Your task to perform on an android device: Turn on the flashlight Image 0: 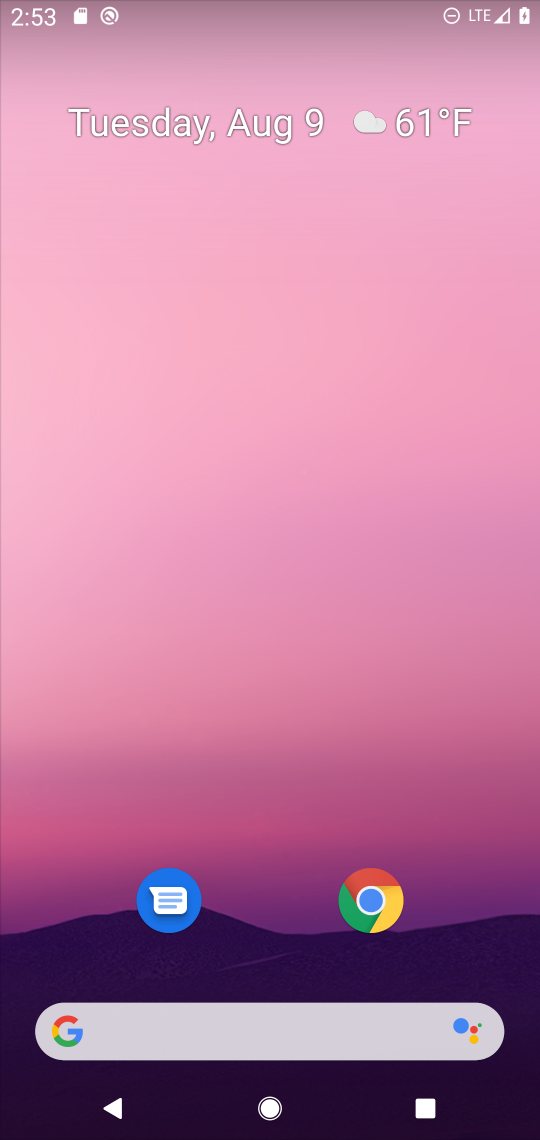
Step 0: press home button
Your task to perform on an android device: Turn on the flashlight Image 1: 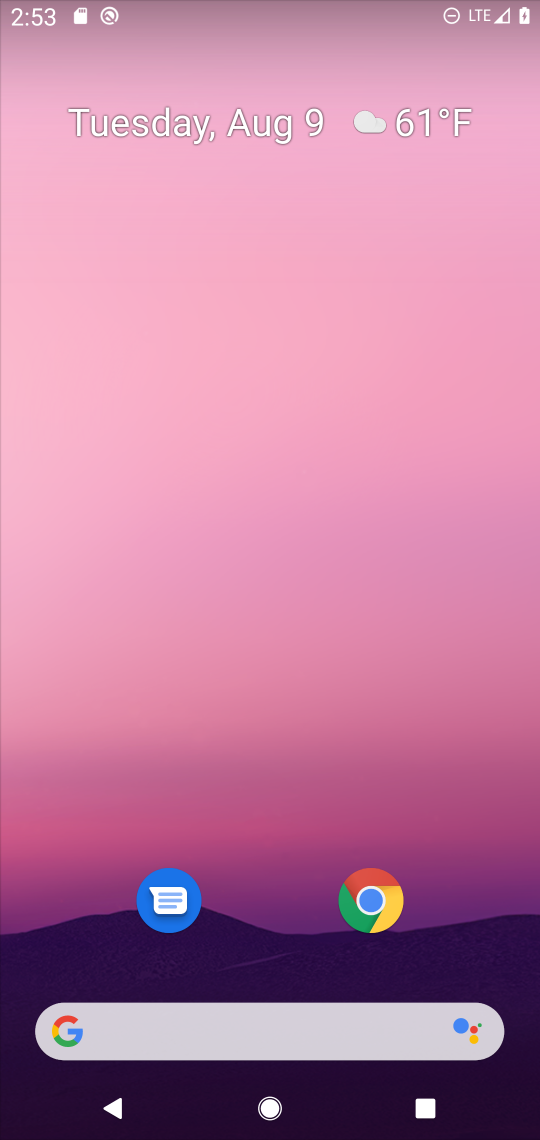
Step 1: drag from (274, 6) to (256, 446)
Your task to perform on an android device: Turn on the flashlight Image 2: 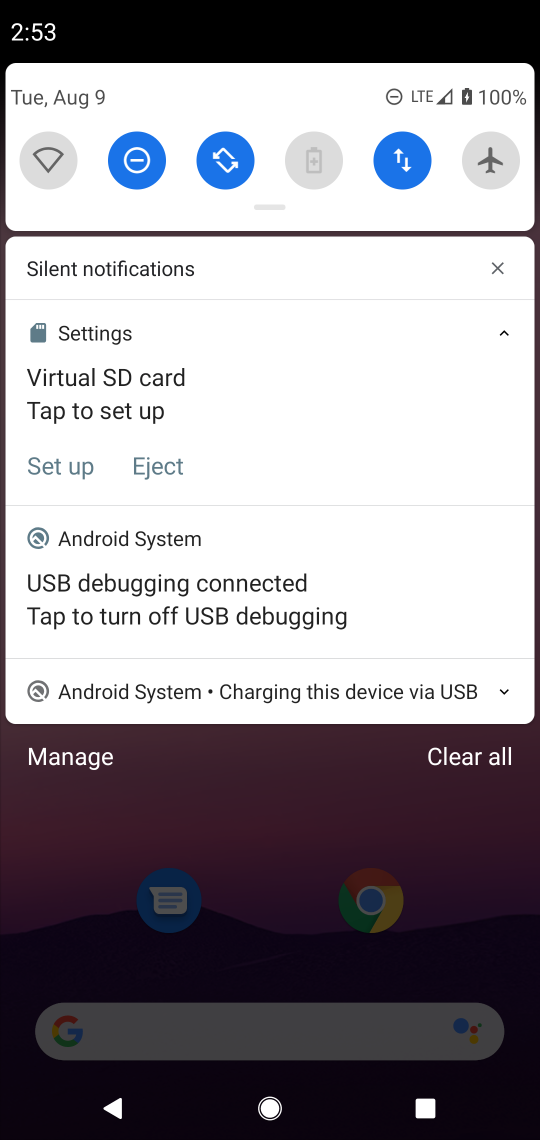
Step 2: drag from (264, 124) to (289, 621)
Your task to perform on an android device: Turn on the flashlight Image 3: 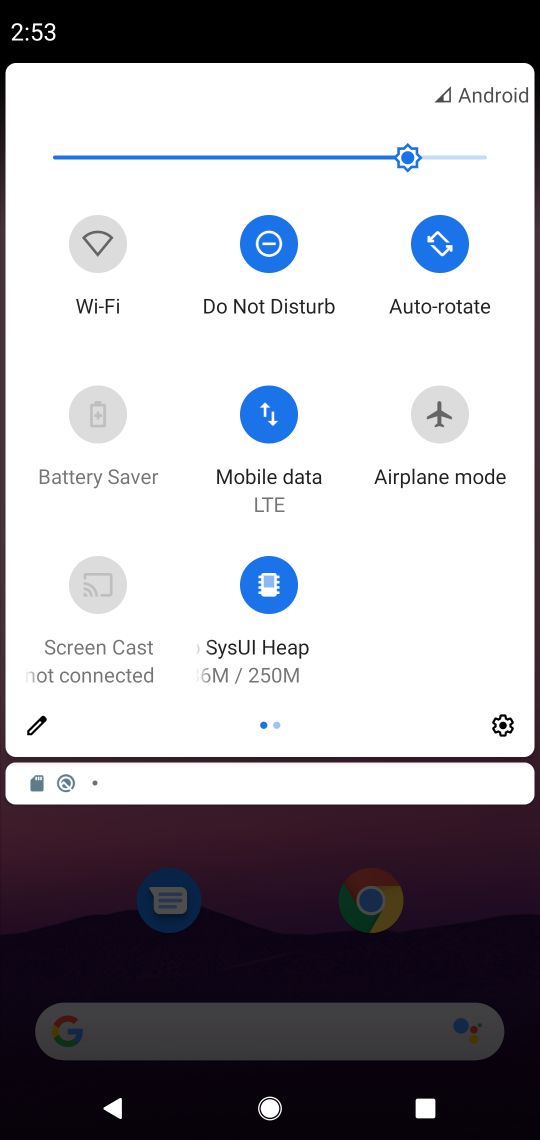
Step 3: click (50, 731)
Your task to perform on an android device: Turn on the flashlight Image 4: 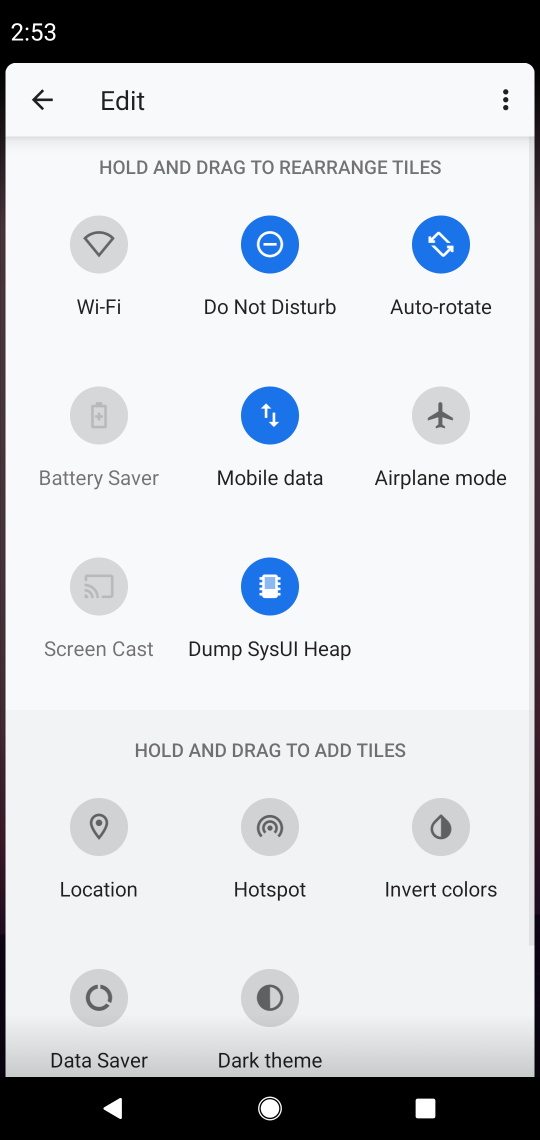
Step 4: task complete